Your task to perform on an android device: turn on location history Image 0: 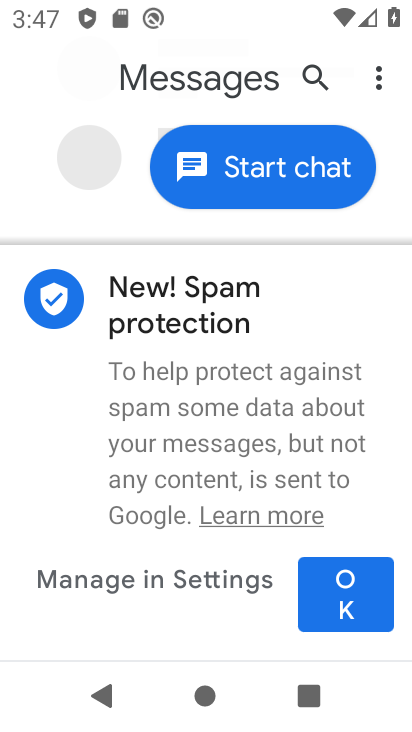
Step 0: press home button
Your task to perform on an android device: turn on location history Image 1: 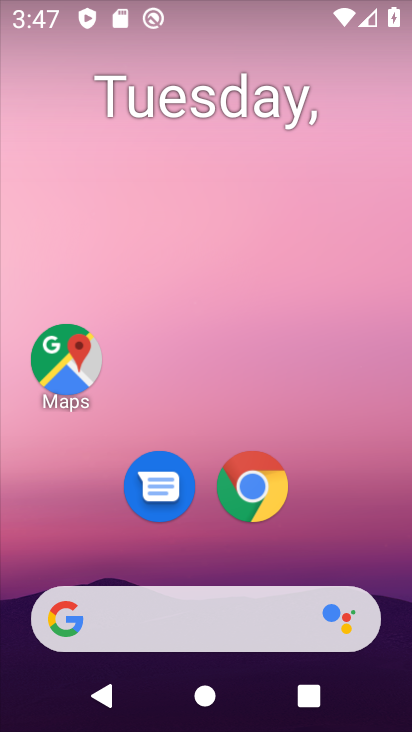
Step 1: drag from (367, 416) to (367, 84)
Your task to perform on an android device: turn on location history Image 2: 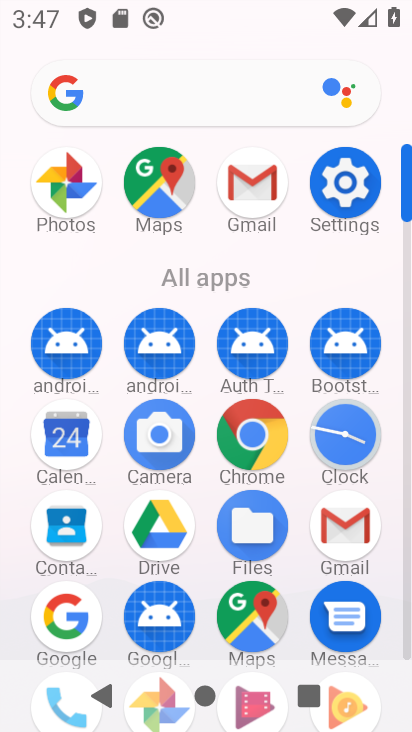
Step 2: click (339, 188)
Your task to perform on an android device: turn on location history Image 3: 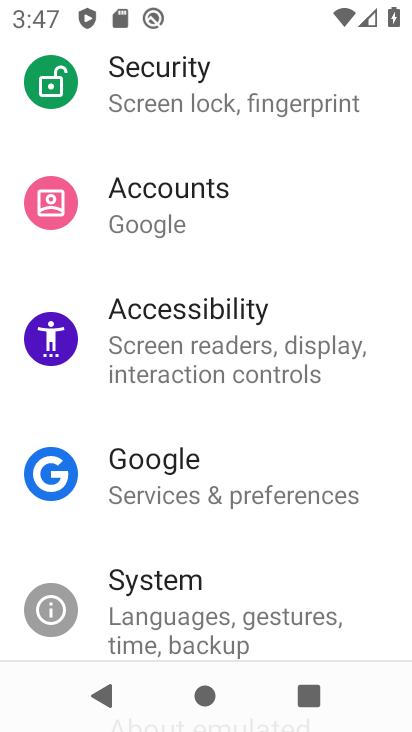
Step 3: drag from (251, 535) to (258, 181)
Your task to perform on an android device: turn on location history Image 4: 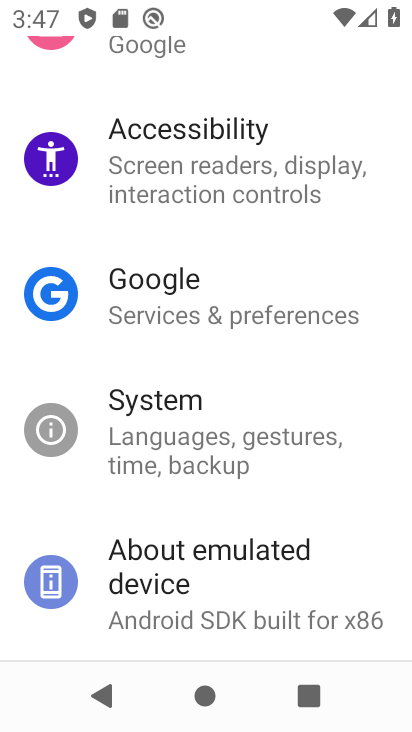
Step 4: drag from (221, 472) to (242, 233)
Your task to perform on an android device: turn on location history Image 5: 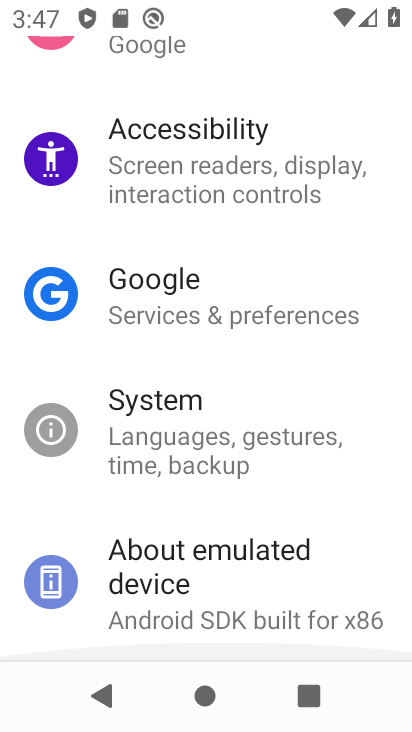
Step 5: drag from (243, 184) to (260, 558)
Your task to perform on an android device: turn on location history Image 6: 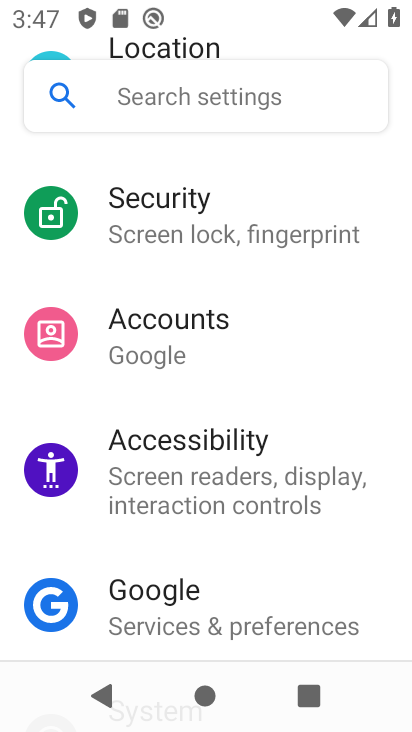
Step 6: drag from (303, 200) to (332, 414)
Your task to perform on an android device: turn on location history Image 7: 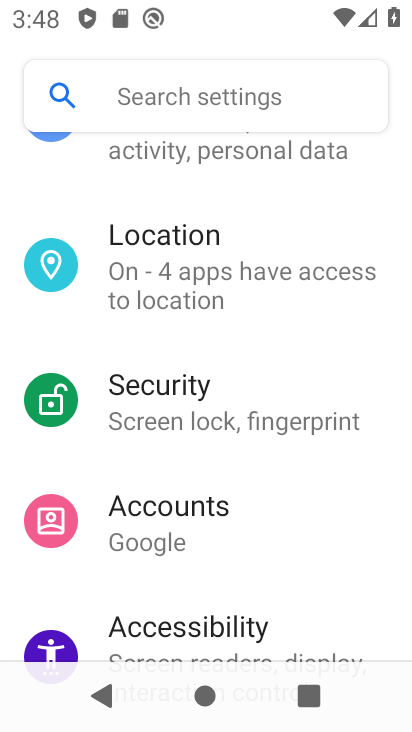
Step 7: click (212, 290)
Your task to perform on an android device: turn on location history Image 8: 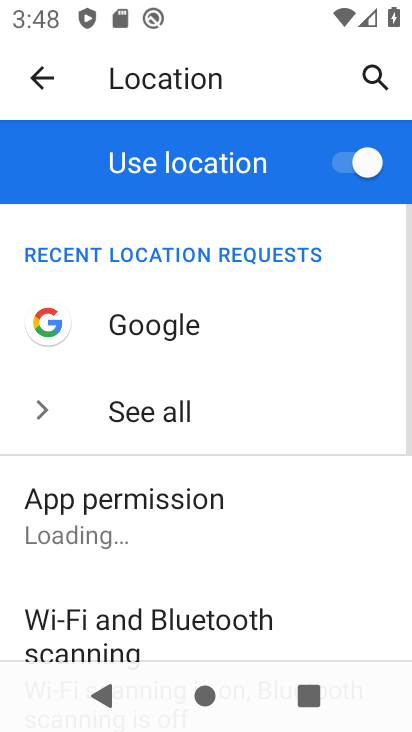
Step 8: drag from (229, 610) to (202, 329)
Your task to perform on an android device: turn on location history Image 9: 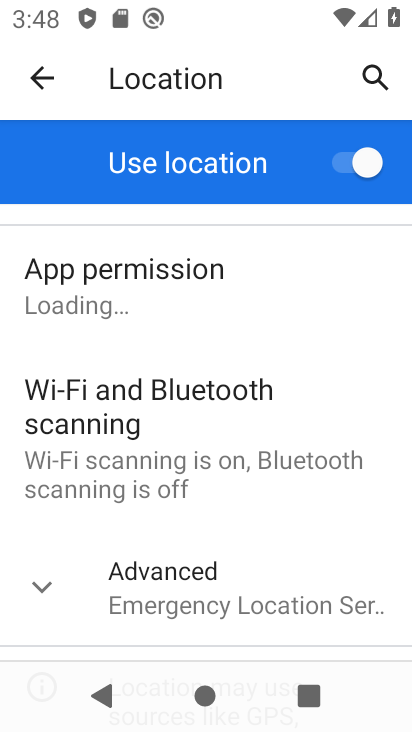
Step 9: click (198, 586)
Your task to perform on an android device: turn on location history Image 10: 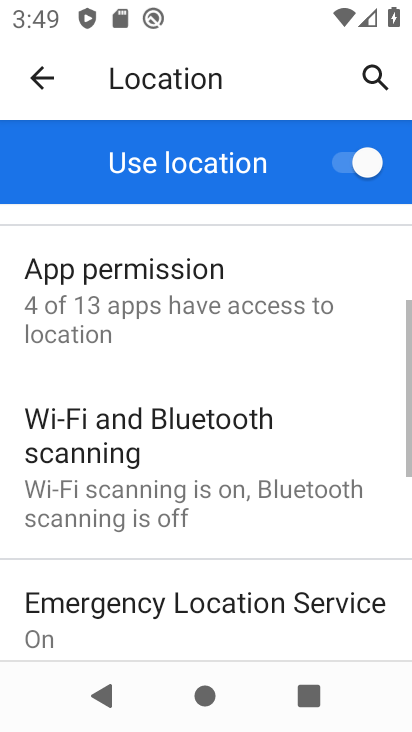
Step 10: drag from (192, 619) to (190, 389)
Your task to perform on an android device: turn on location history Image 11: 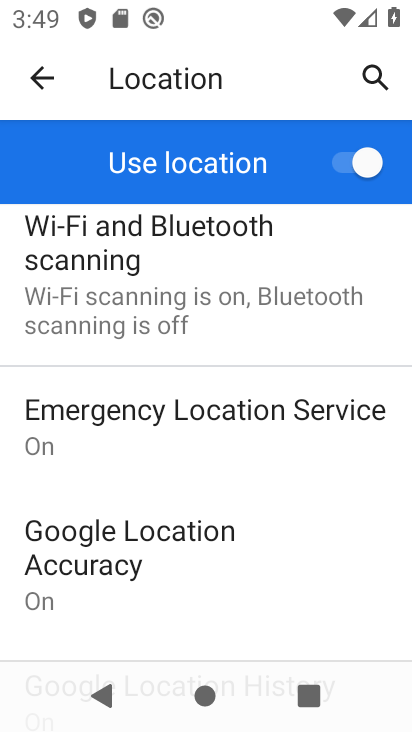
Step 11: drag from (183, 530) to (184, 320)
Your task to perform on an android device: turn on location history Image 12: 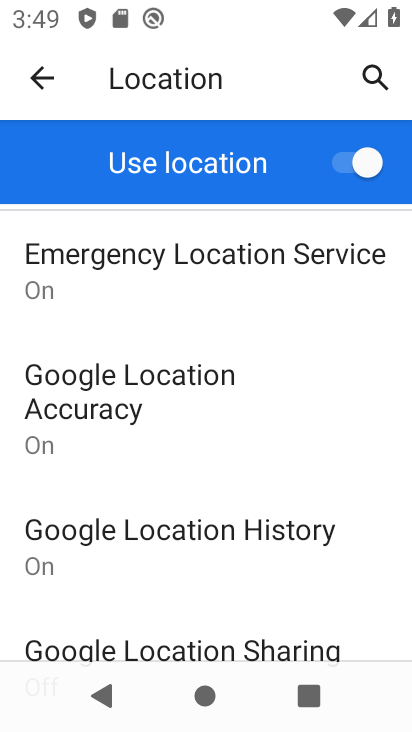
Step 12: click (197, 529)
Your task to perform on an android device: turn on location history Image 13: 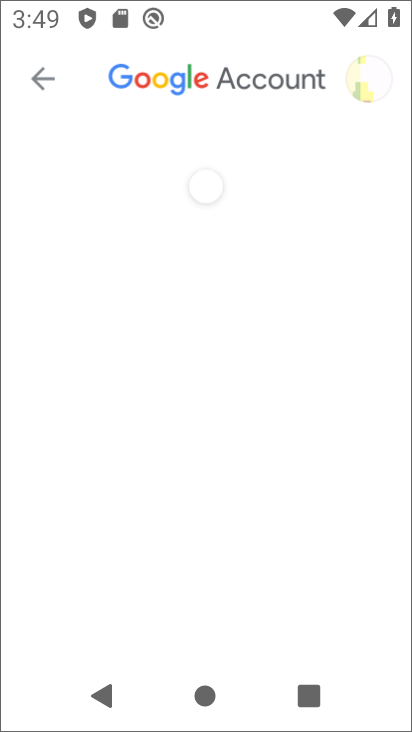
Step 13: task complete